Your task to perform on an android device: Add usb-c to usb-b to the cart on ebay, then select checkout. Image 0: 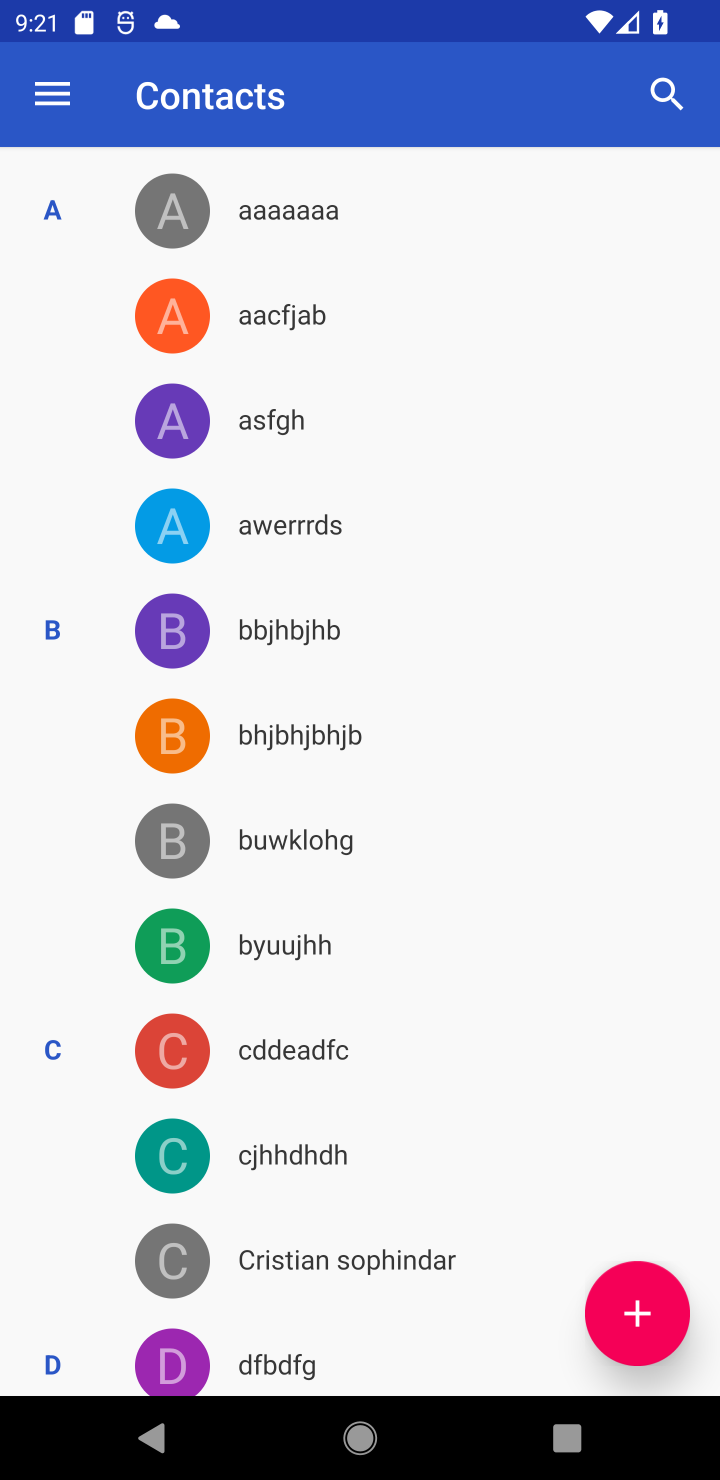
Step 0: press home button
Your task to perform on an android device: Add usb-c to usb-b to the cart on ebay, then select checkout. Image 1: 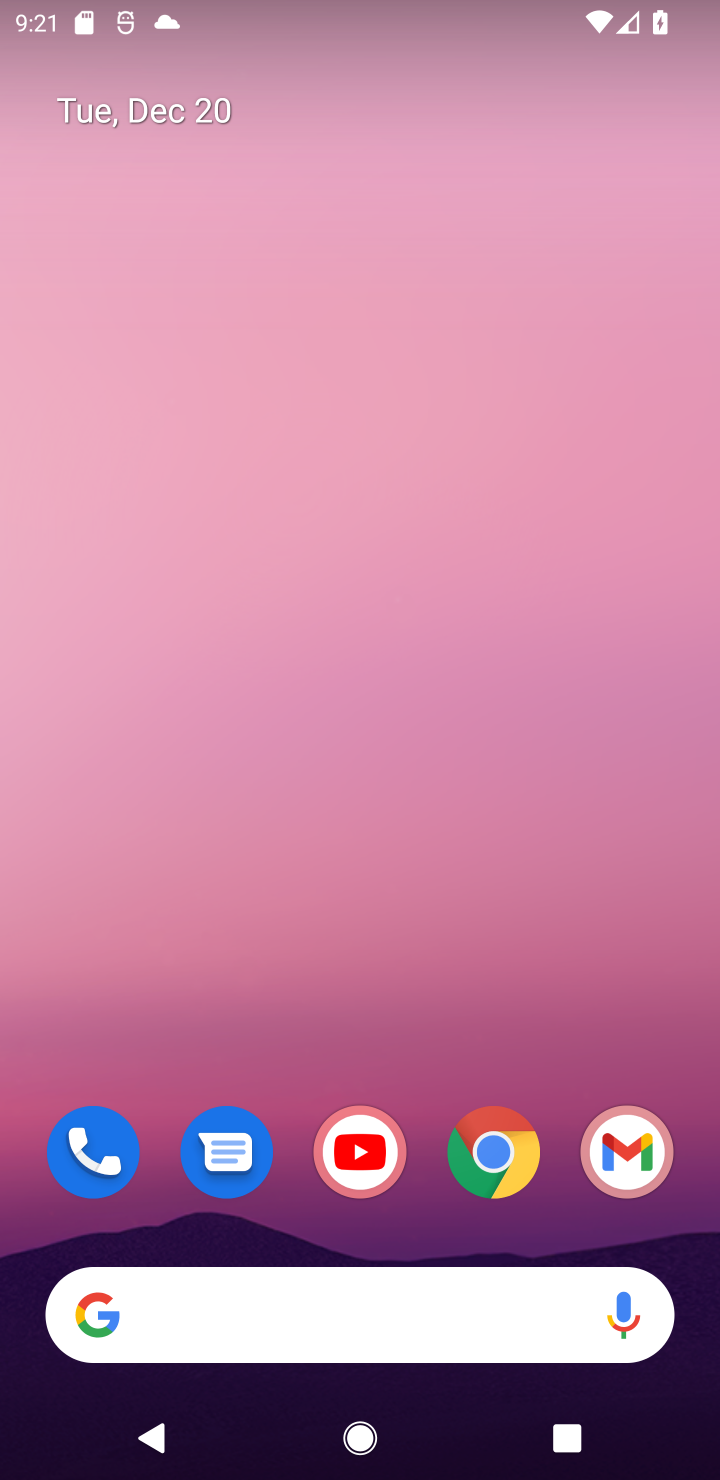
Step 1: click (496, 1139)
Your task to perform on an android device: Add usb-c to usb-b to the cart on ebay, then select checkout. Image 2: 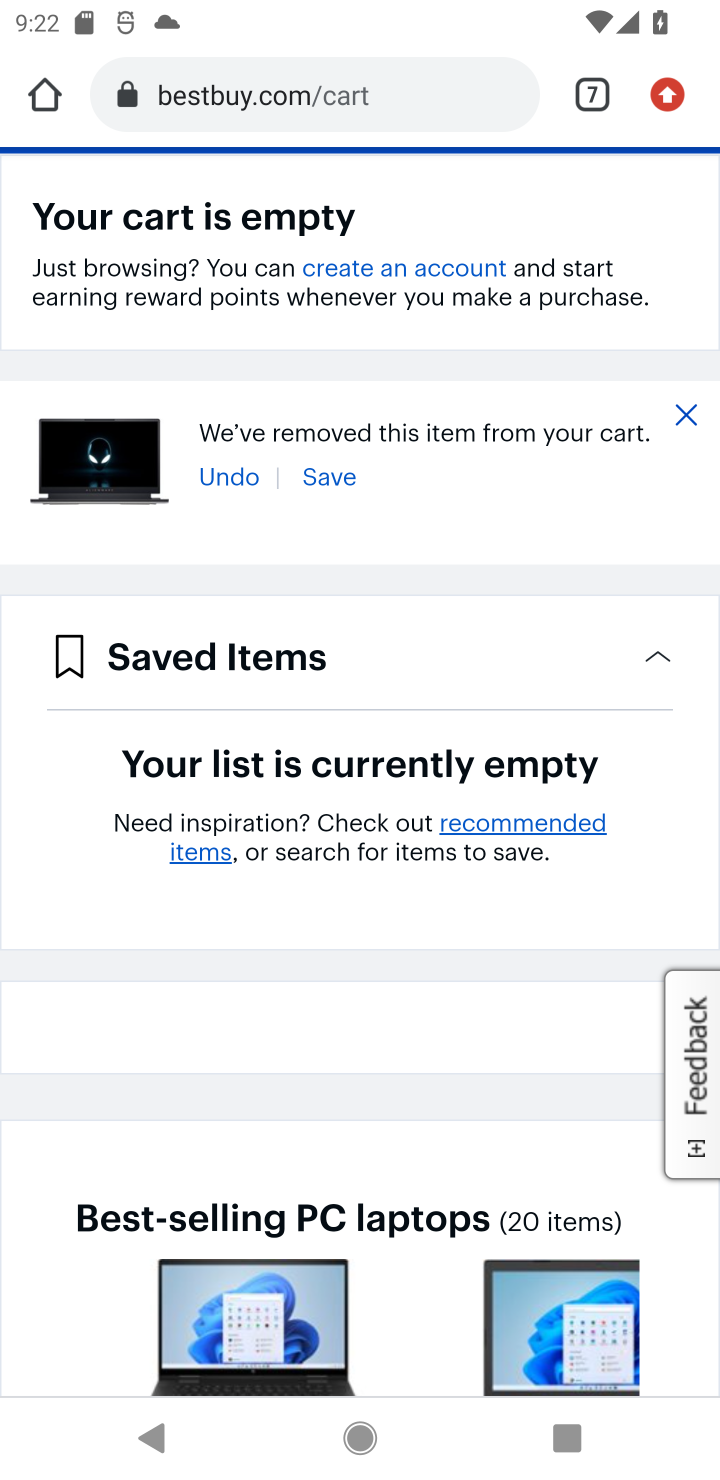
Step 2: click (584, 91)
Your task to perform on an android device: Add usb-c to usb-b to the cart on ebay, then select checkout. Image 3: 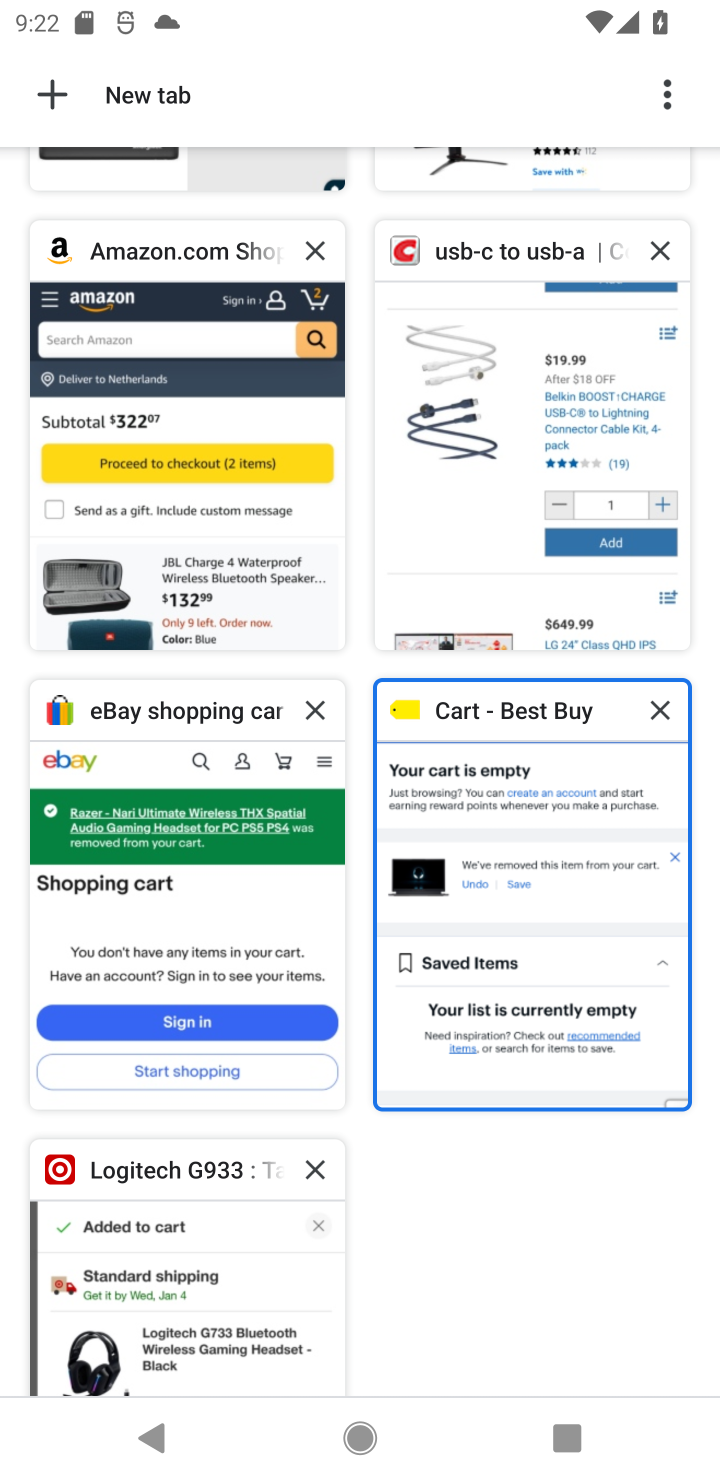
Step 3: drag from (511, 218) to (378, 771)
Your task to perform on an android device: Add usb-c to usb-b to the cart on ebay, then select checkout. Image 4: 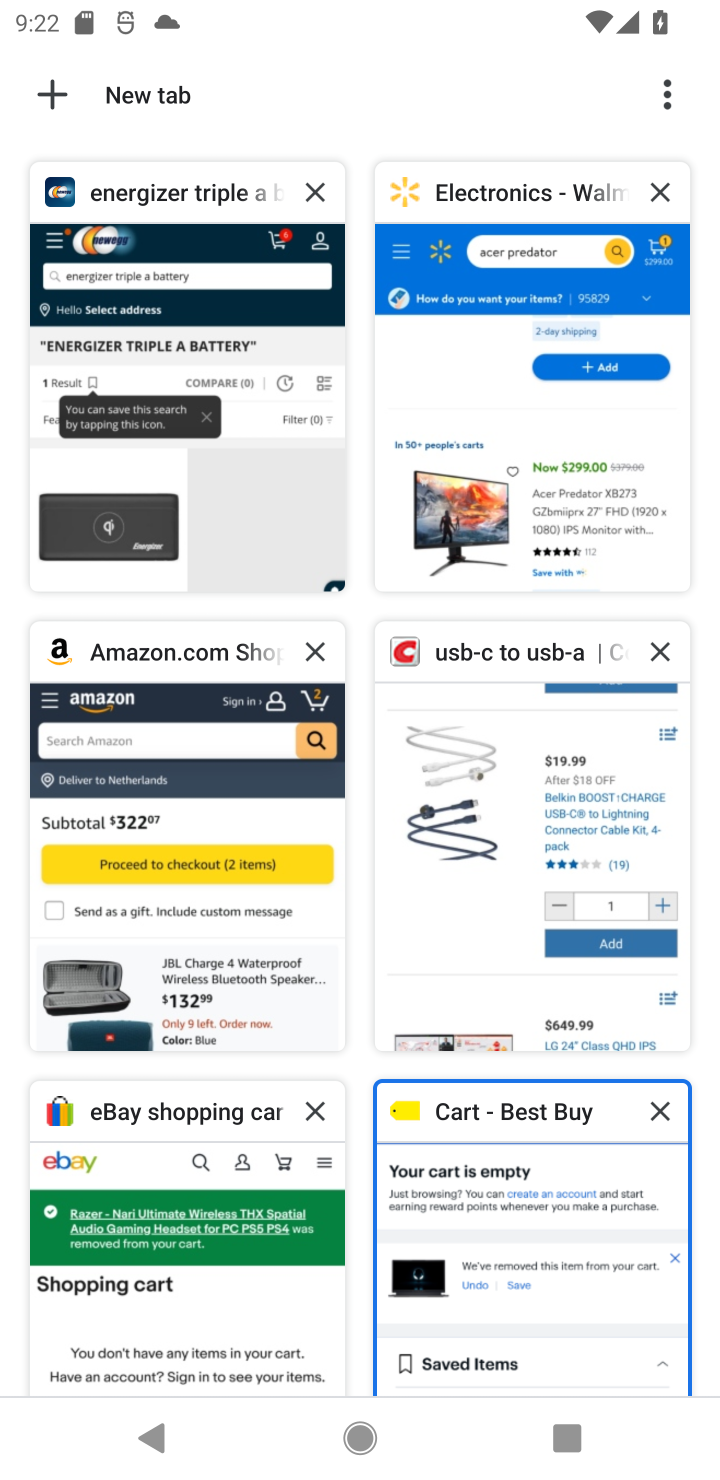
Step 4: click (217, 1211)
Your task to perform on an android device: Add usb-c to usb-b to the cart on ebay, then select checkout. Image 5: 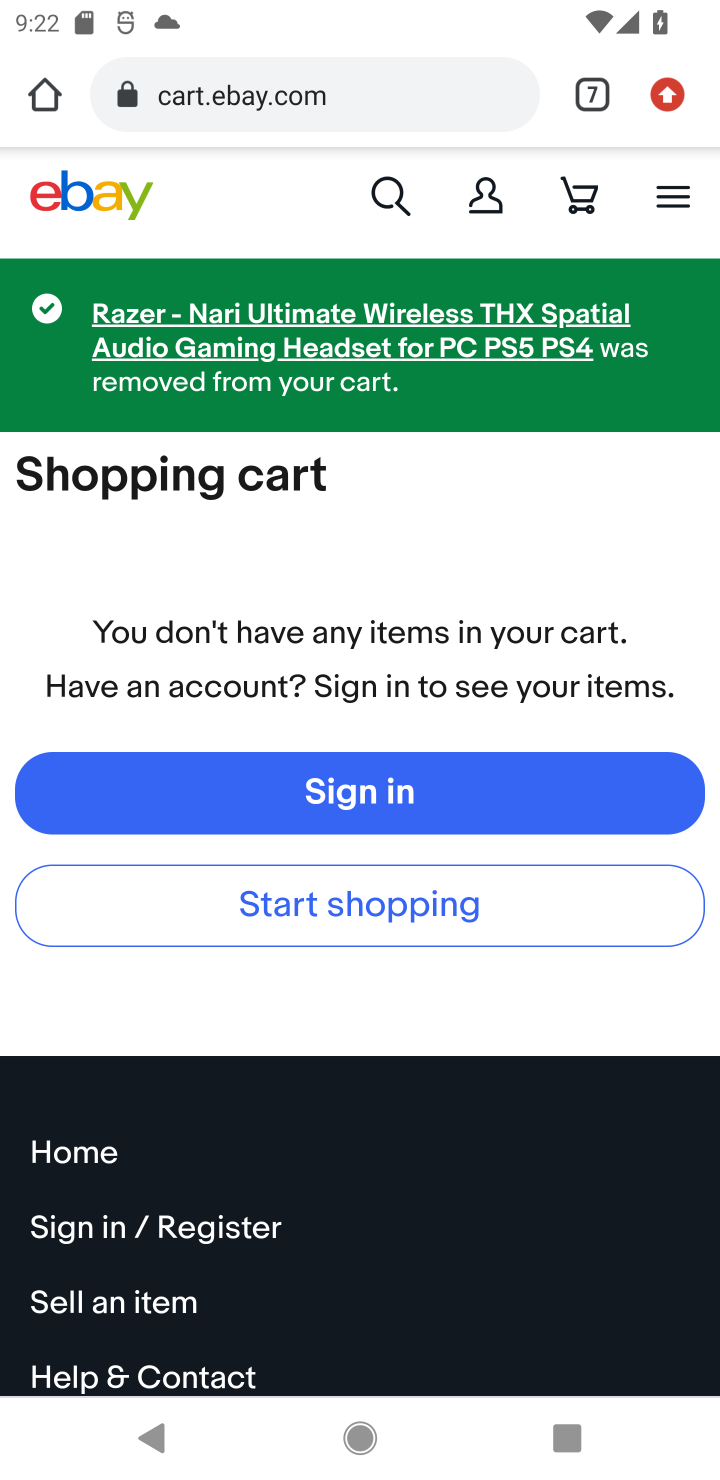
Step 5: click (386, 199)
Your task to perform on an android device: Add usb-c to usb-b to the cart on ebay, then select checkout. Image 6: 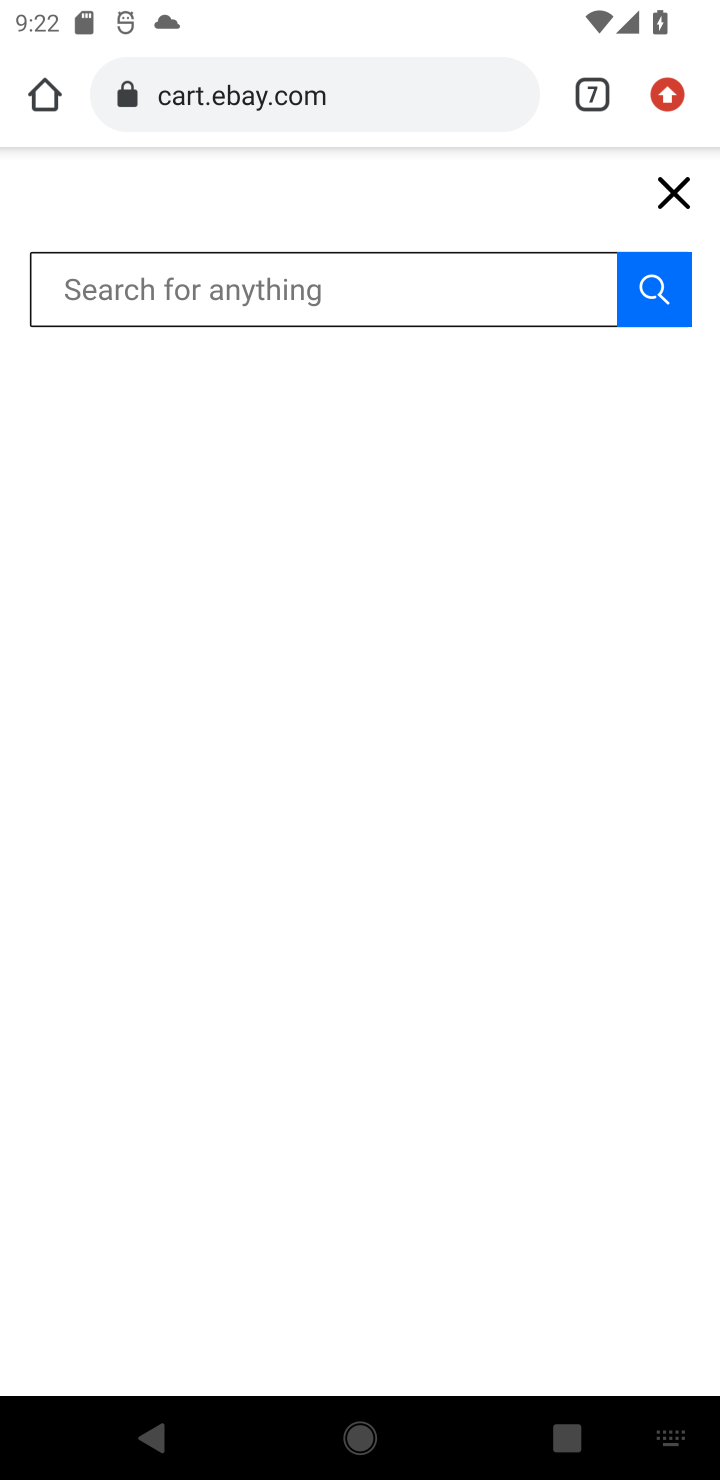
Step 6: type "usb-c to usb-b "
Your task to perform on an android device: Add usb-c to usb-b to the cart on ebay, then select checkout. Image 7: 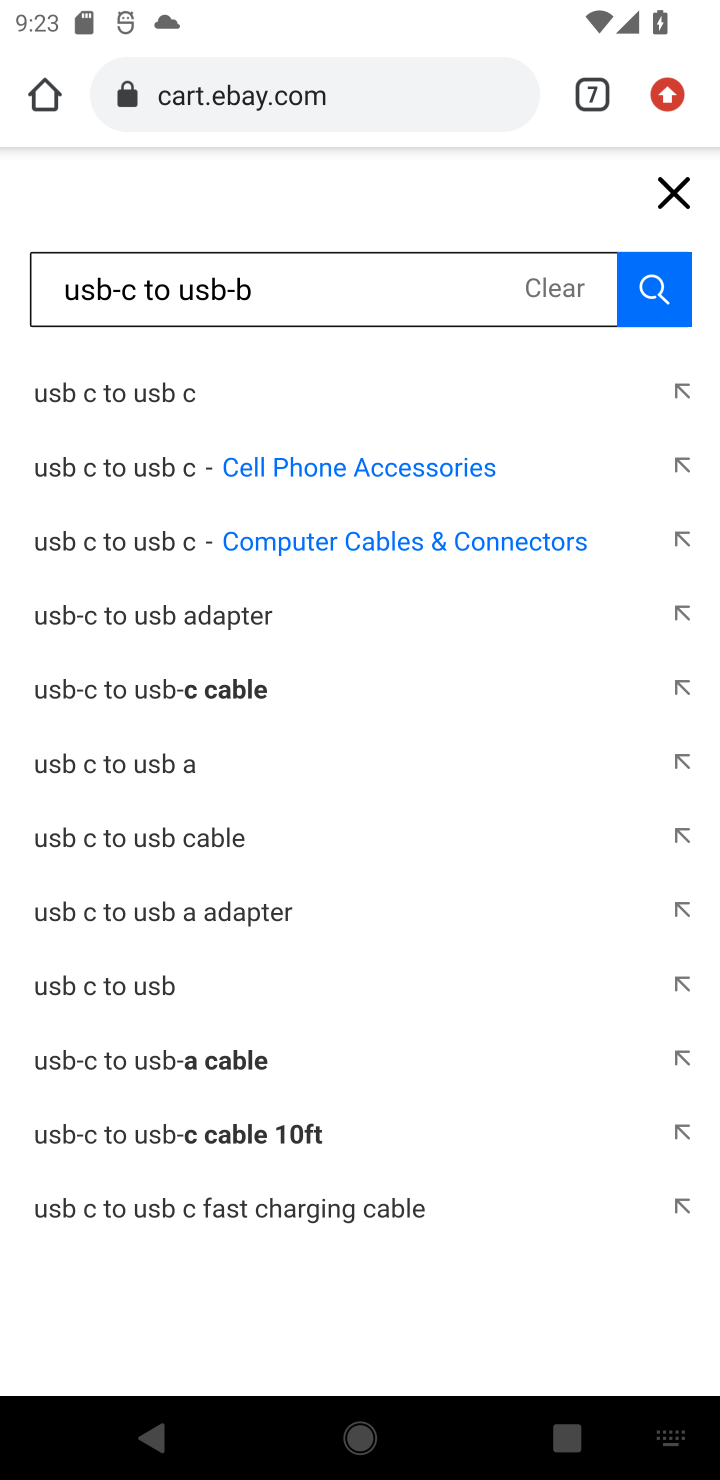
Step 7: click (658, 302)
Your task to perform on an android device: Add usb-c to usb-b to the cart on ebay, then select checkout. Image 8: 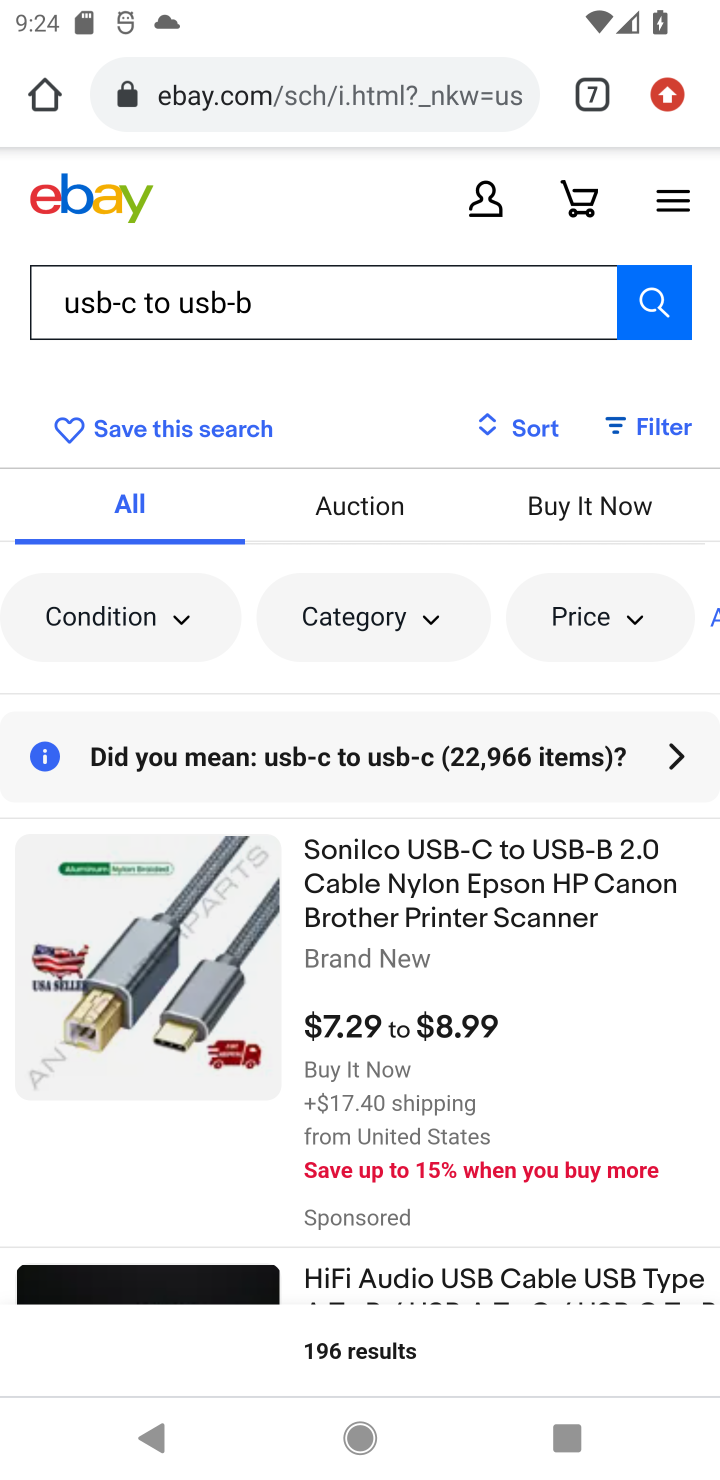
Step 8: click (560, 867)
Your task to perform on an android device: Add usb-c to usb-b to the cart on ebay, then select checkout. Image 9: 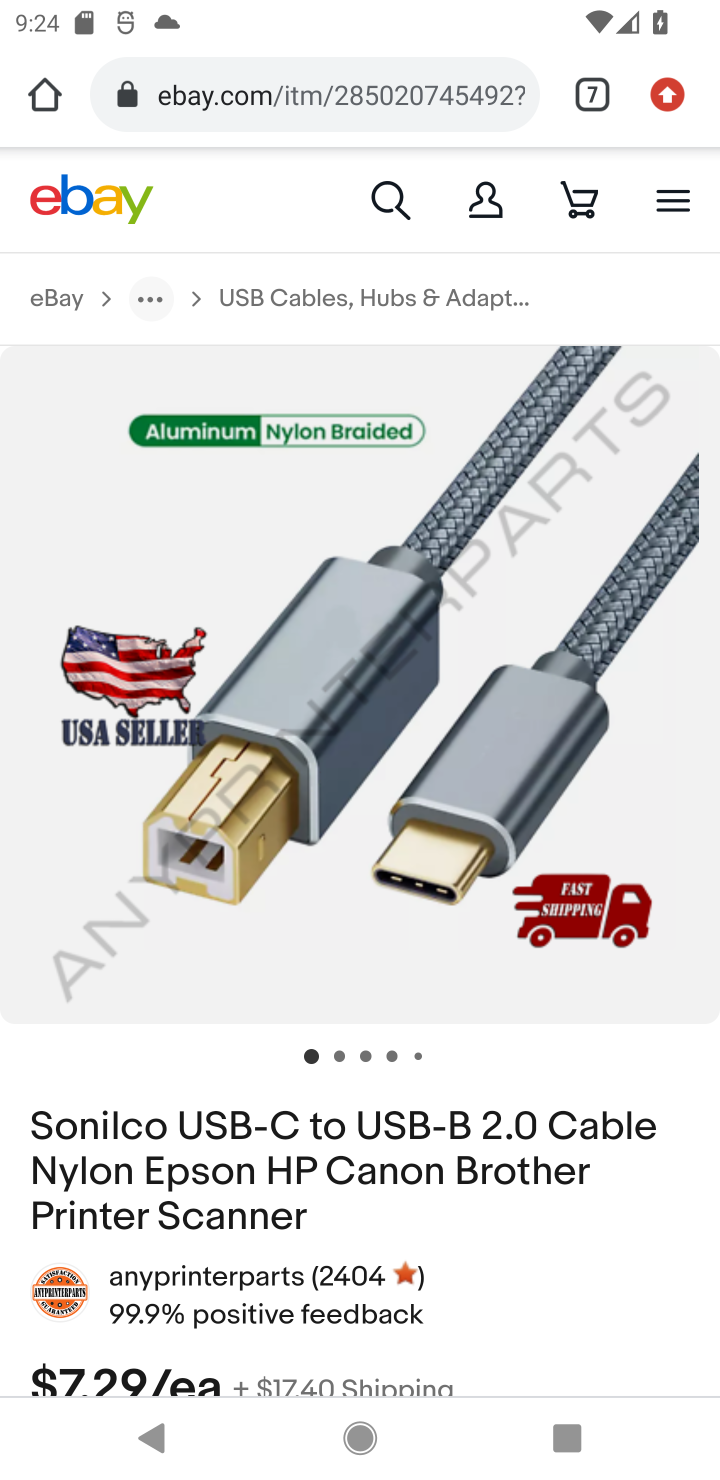
Step 9: drag from (457, 1306) to (510, 326)
Your task to perform on an android device: Add usb-c to usb-b to the cart on ebay, then select checkout. Image 10: 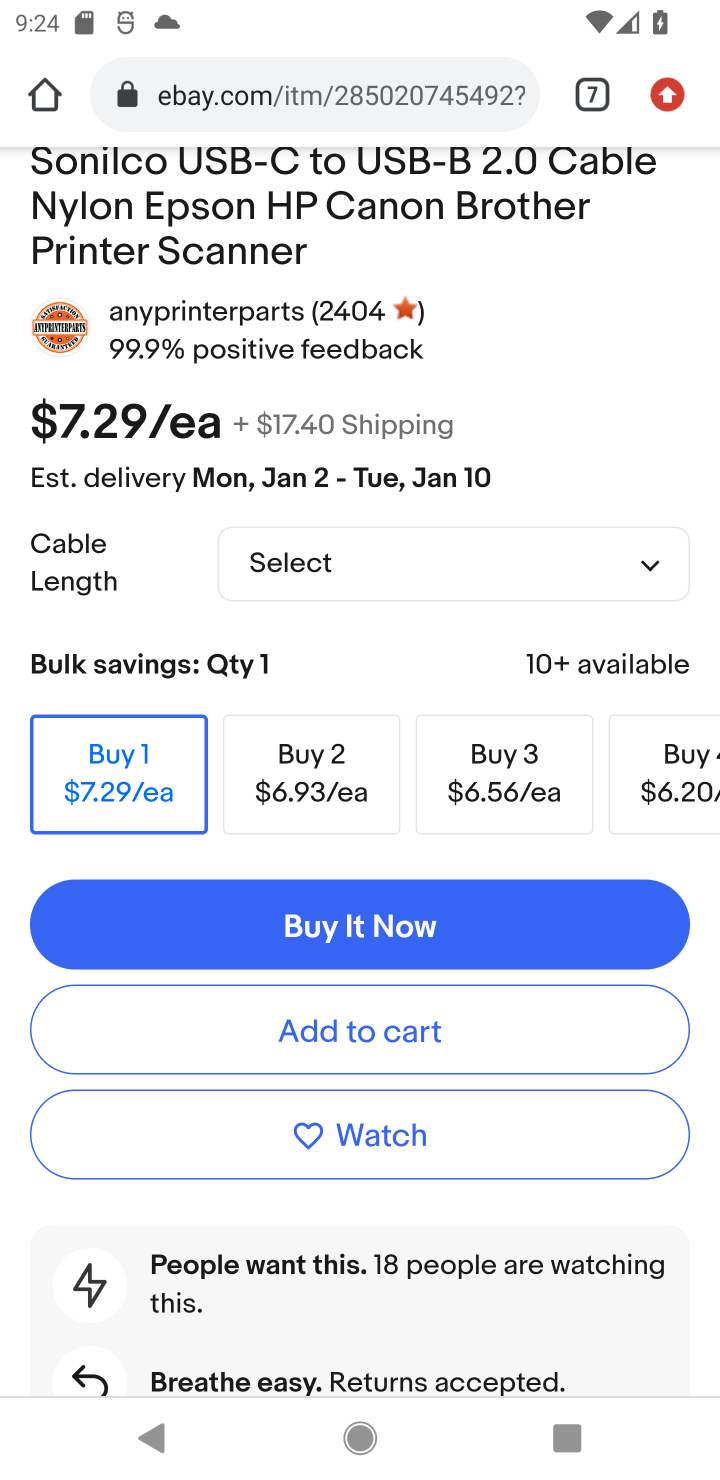
Step 10: click (417, 1030)
Your task to perform on an android device: Add usb-c to usb-b to the cart on ebay, then select checkout. Image 11: 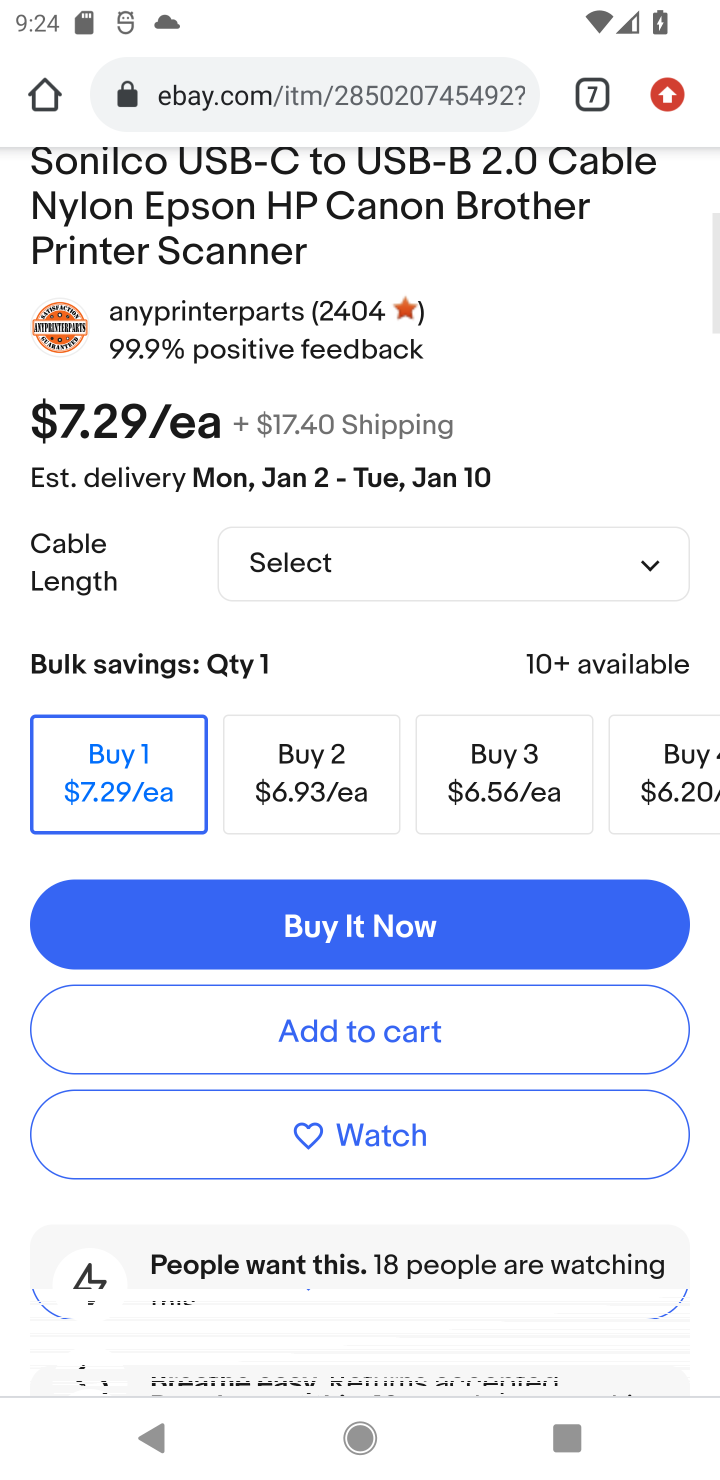
Step 11: click (412, 1045)
Your task to perform on an android device: Add usb-c to usb-b to the cart on ebay, then select checkout. Image 12: 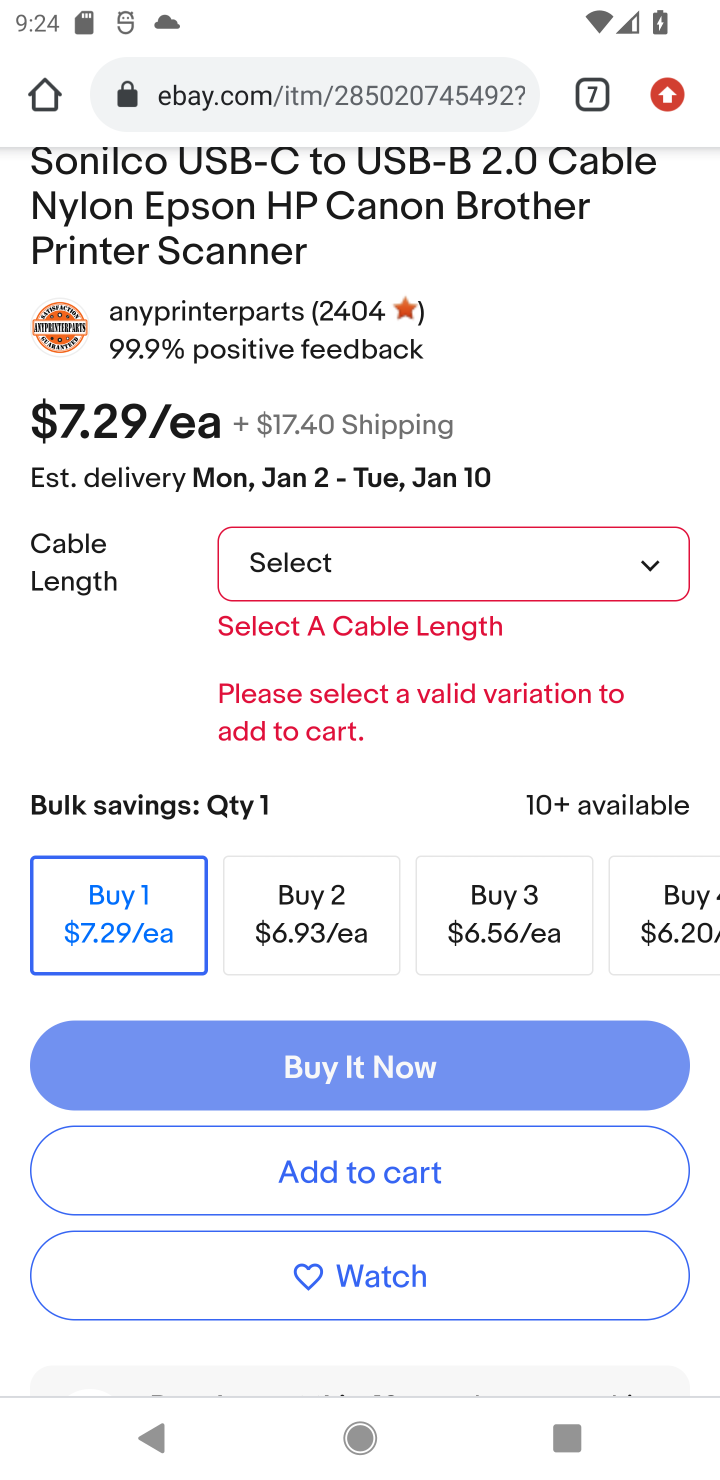
Step 12: click (640, 570)
Your task to perform on an android device: Add usb-c to usb-b to the cart on ebay, then select checkout. Image 13: 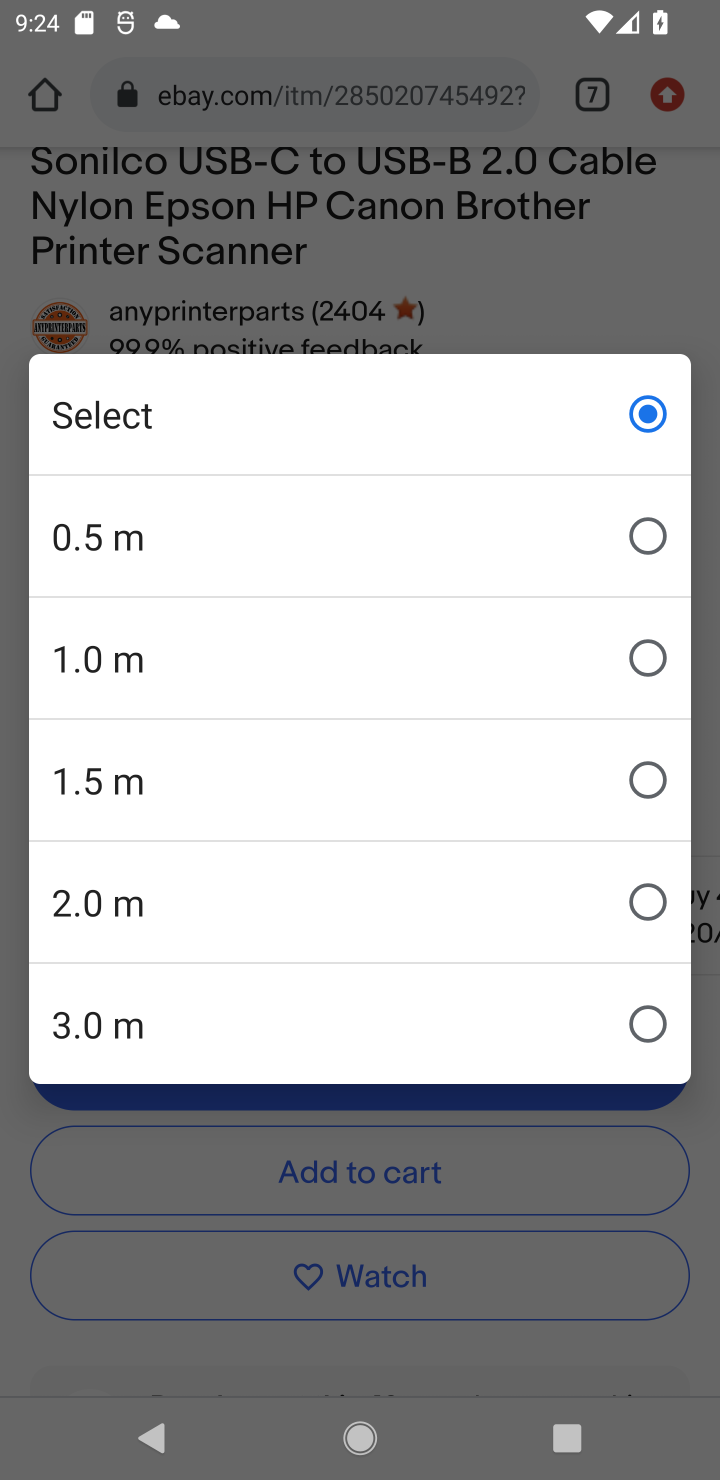
Step 13: click (650, 536)
Your task to perform on an android device: Add usb-c to usb-b to the cart on ebay, then select checkout. Image 14: 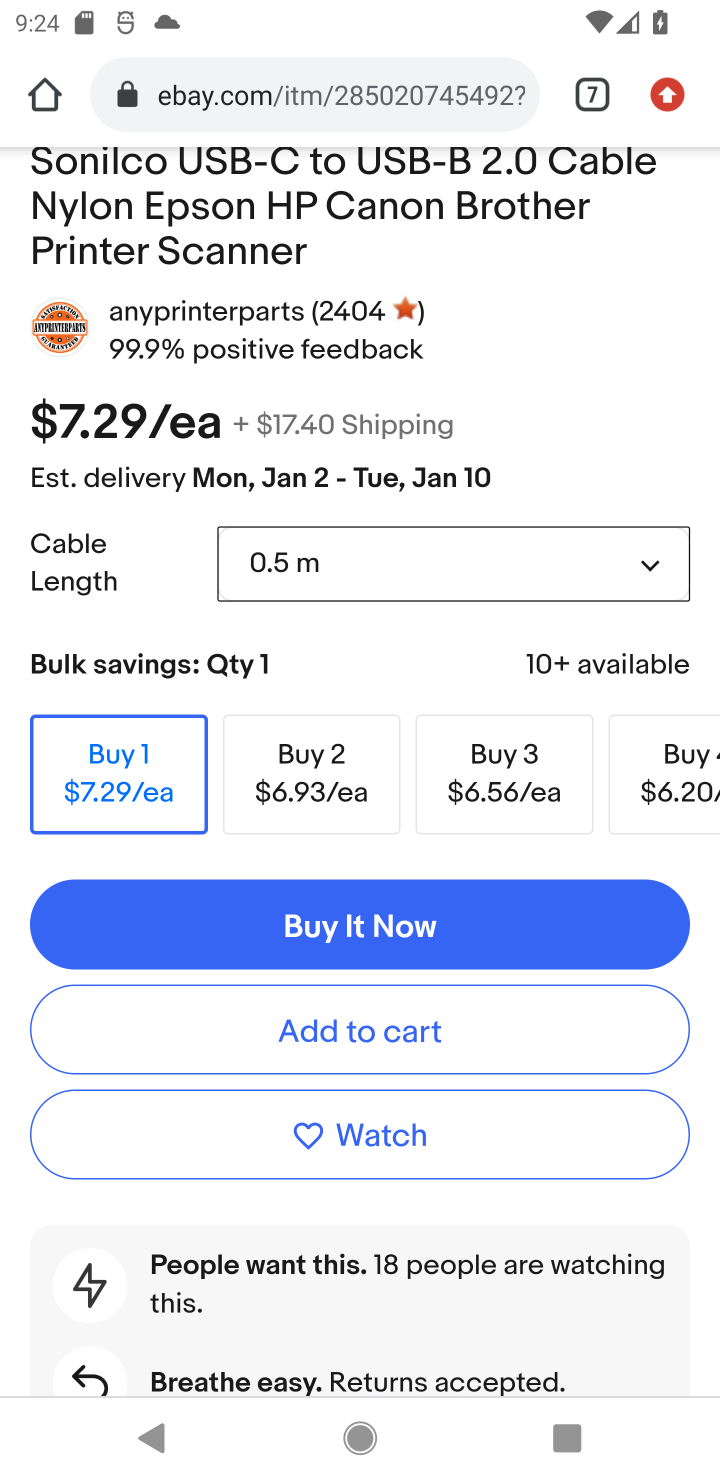
Step 14: click (430, 1050)
Your task to perform on an android device: Add usb-c to usb-b to the cart on ebay, then select checkout. Image 15: 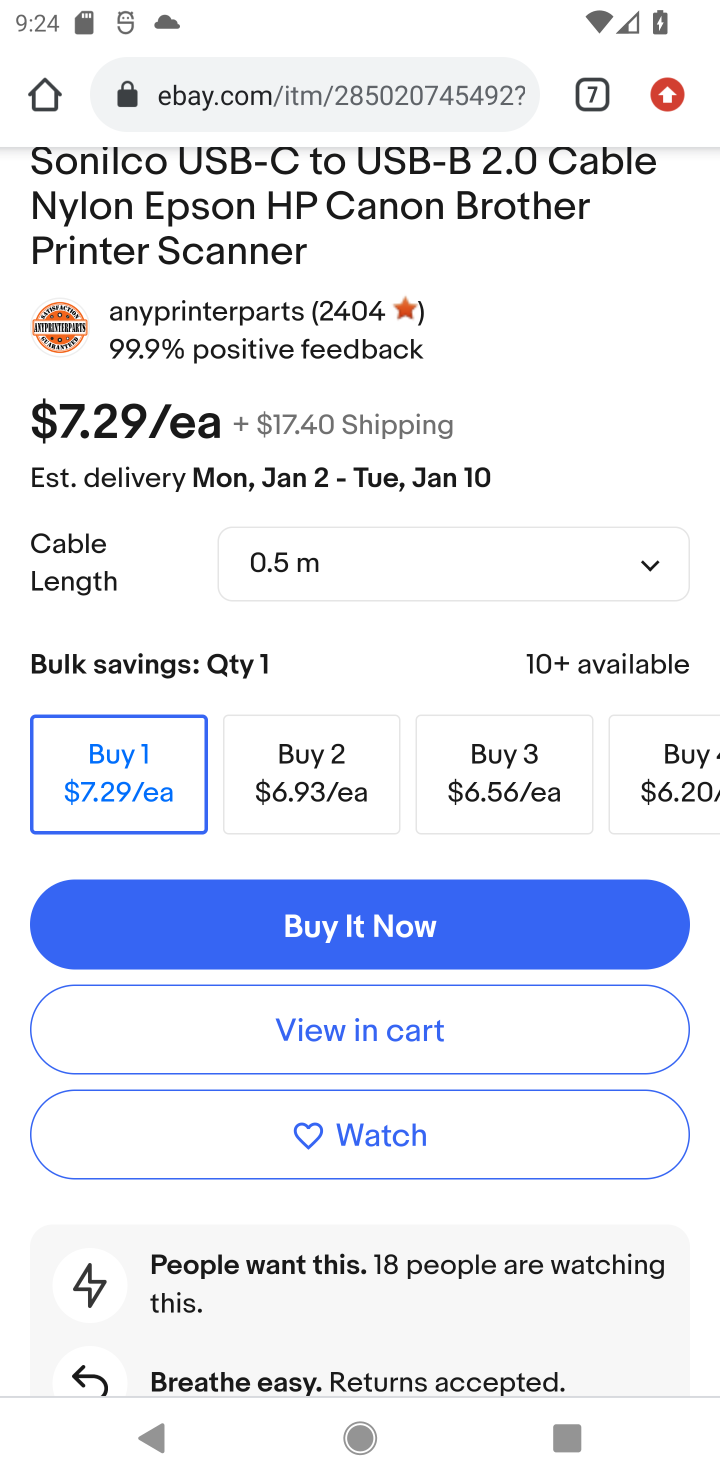
Step 15: task complete